Your task to perform on an android device: What's the weather today? Image 0: 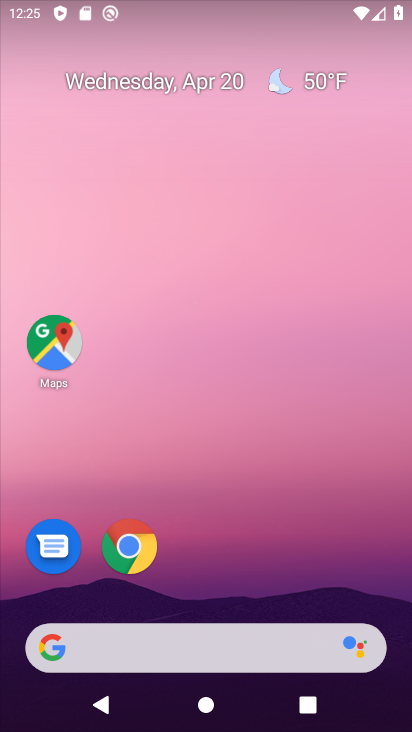
Step 0: click (291, 92)
Your task to perform on an android device: What's the weather today? Image 1: 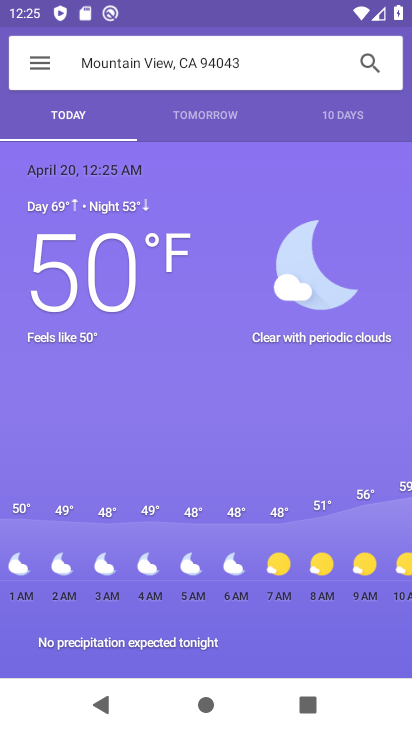
Step 1: task complete